Your task to perform on an android device: turn on bluetooth scan Image 0: 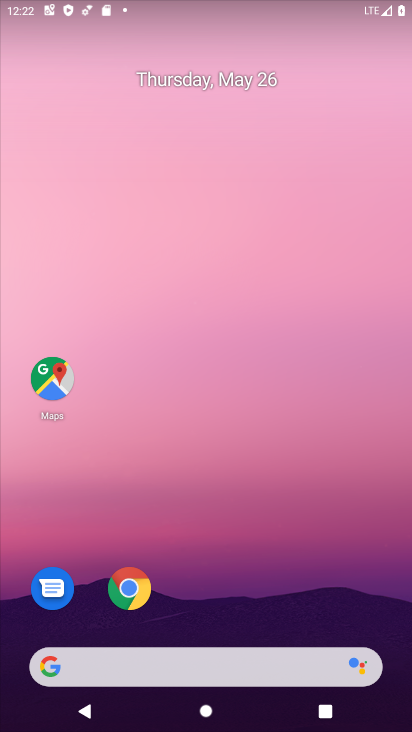
Step 0: drag from (284, 534) to (76, 2)
Your task to perform on an android device: turn on bluetooth scan Image 1: 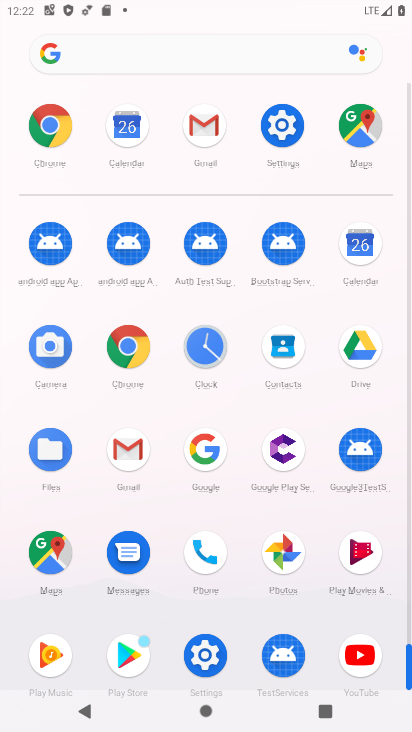
Step 1: drag from (7, 501) to (19, 221)
Your task to perform on an android device: turn on bluetooth scan Image 2: 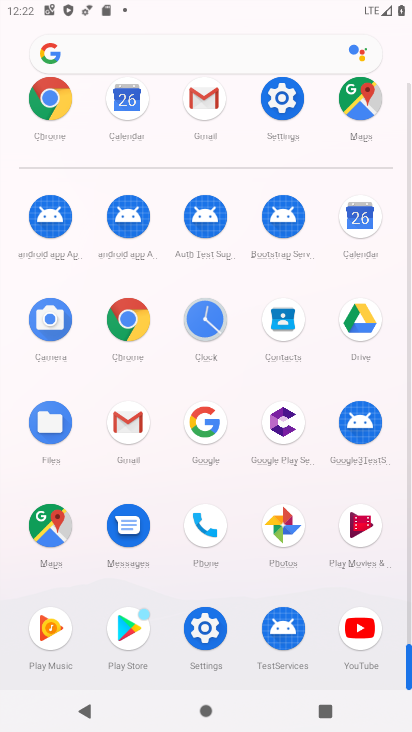
Step 2: click (203, 627)
Your task to perform on an android device: turn on bluetooth scan Image 3: 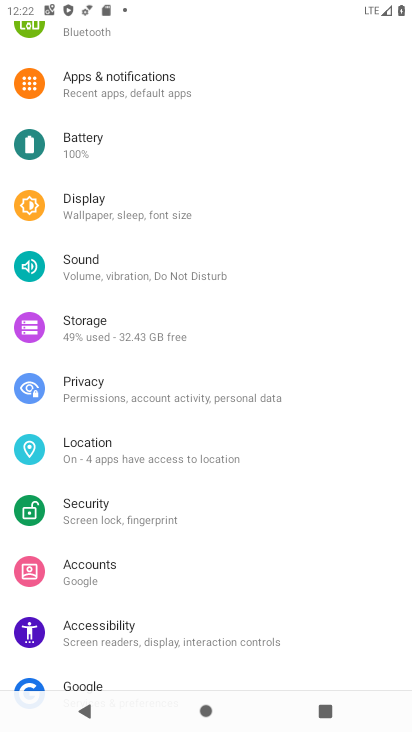
Step 3: drag from (213, 77) to (237, 552)
Your task to perform on an android device: turn on bluetooth scan Image 4: 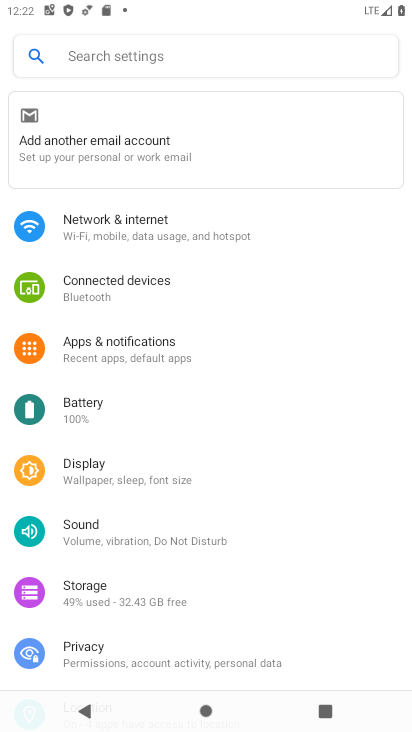
Step 4: click (174, 226)
Your task to perform on an android device: turn on bluetooth scan Image 5: 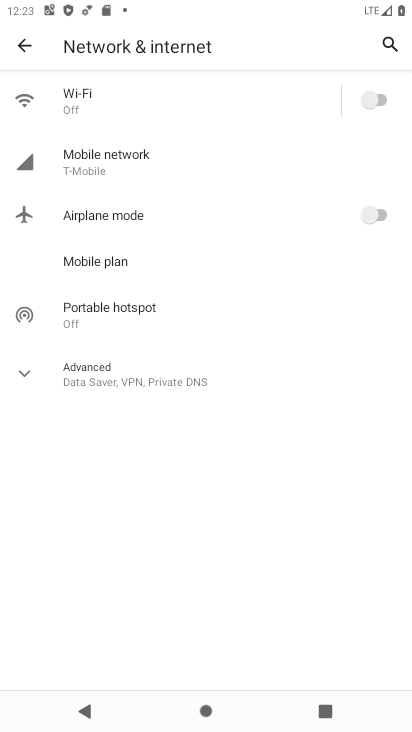
Step 5: click (36, 374)
Your task to perform on an android device: turn on bluetooth scan Image 6: 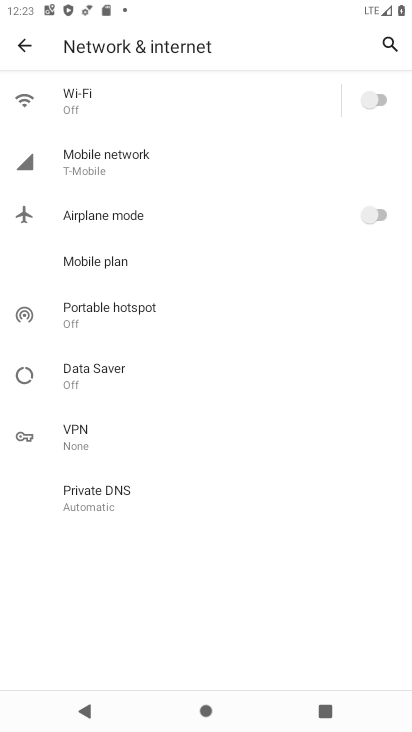
Step 6: click (15, 42)
Your task to perform on an android device: turn on bluetooth scan Image 7: 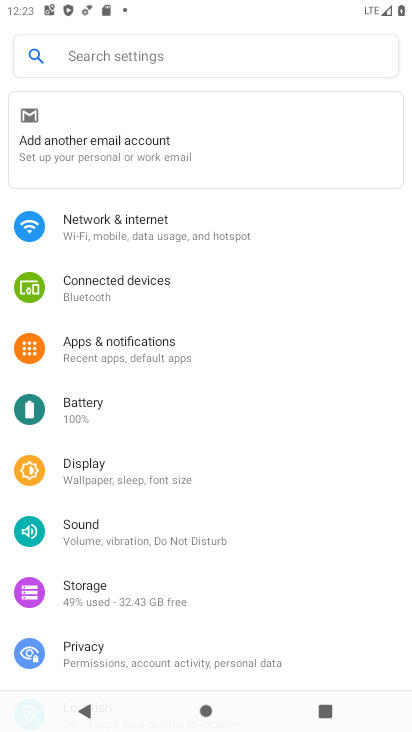
Step 7: drag from (197, 624) to (202, 245)
Your task to perform on an android device: turn on bluetooth scan Image 8: 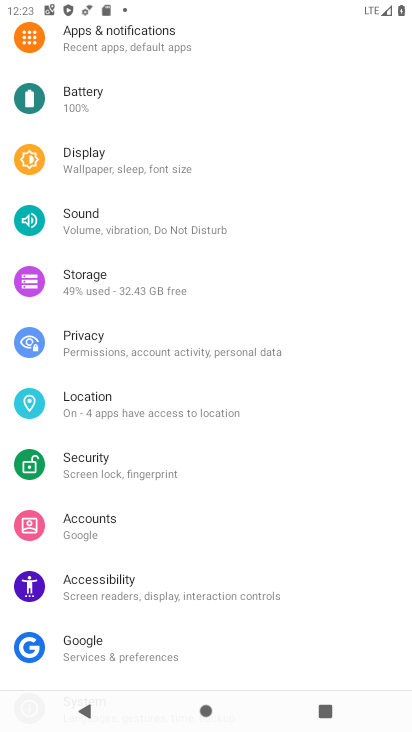
Step 8: click (127, 400)
Your task to perform on an android device: turn on bluetooth scan Image 9: 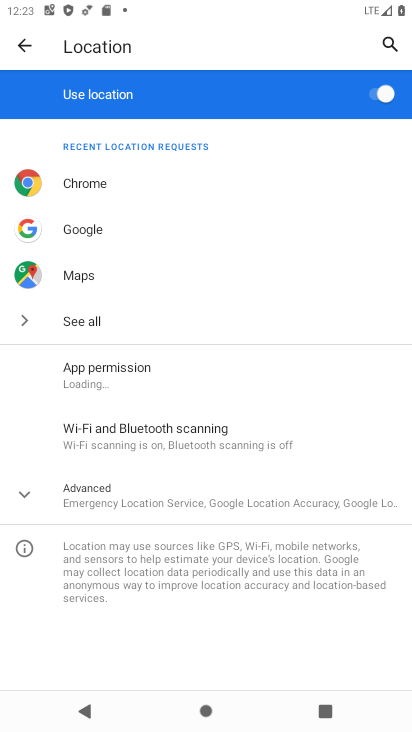
Step 9: click (105, 485)
Your task to perform on an android device: turn on bluetooth scan Image 10: 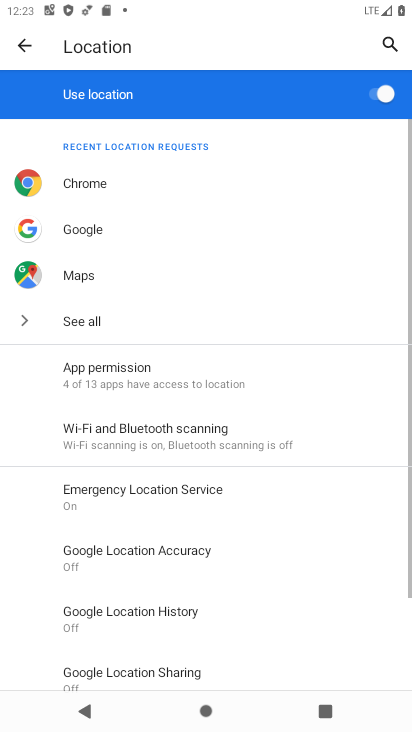
Step 10: click (155, 439)
Your task to perform on an android device: turn on bluetooth scan Image 11: 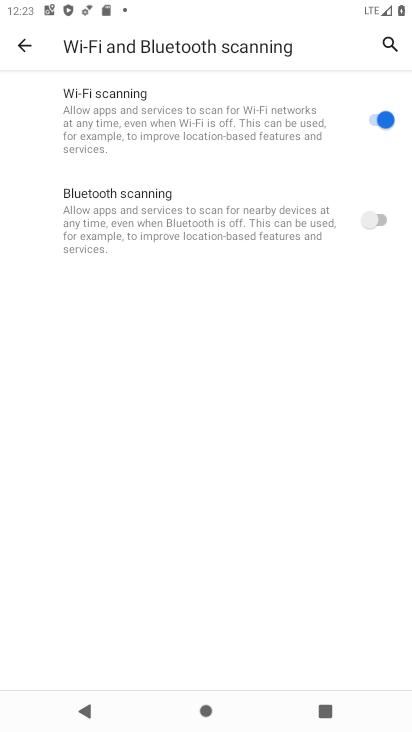
Step 11: click (376, 221)
Your task to perform on an android device: turn on bluetooth scan Image 12: 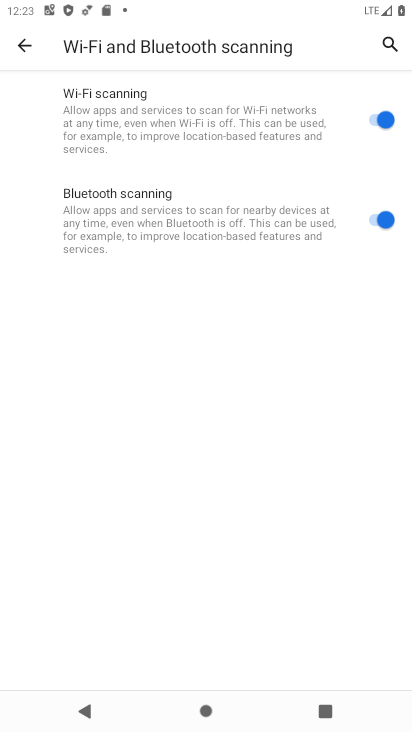
Step 12: task complete